Your task to perform on an android device: Open Maps and search for coffee Image 0: 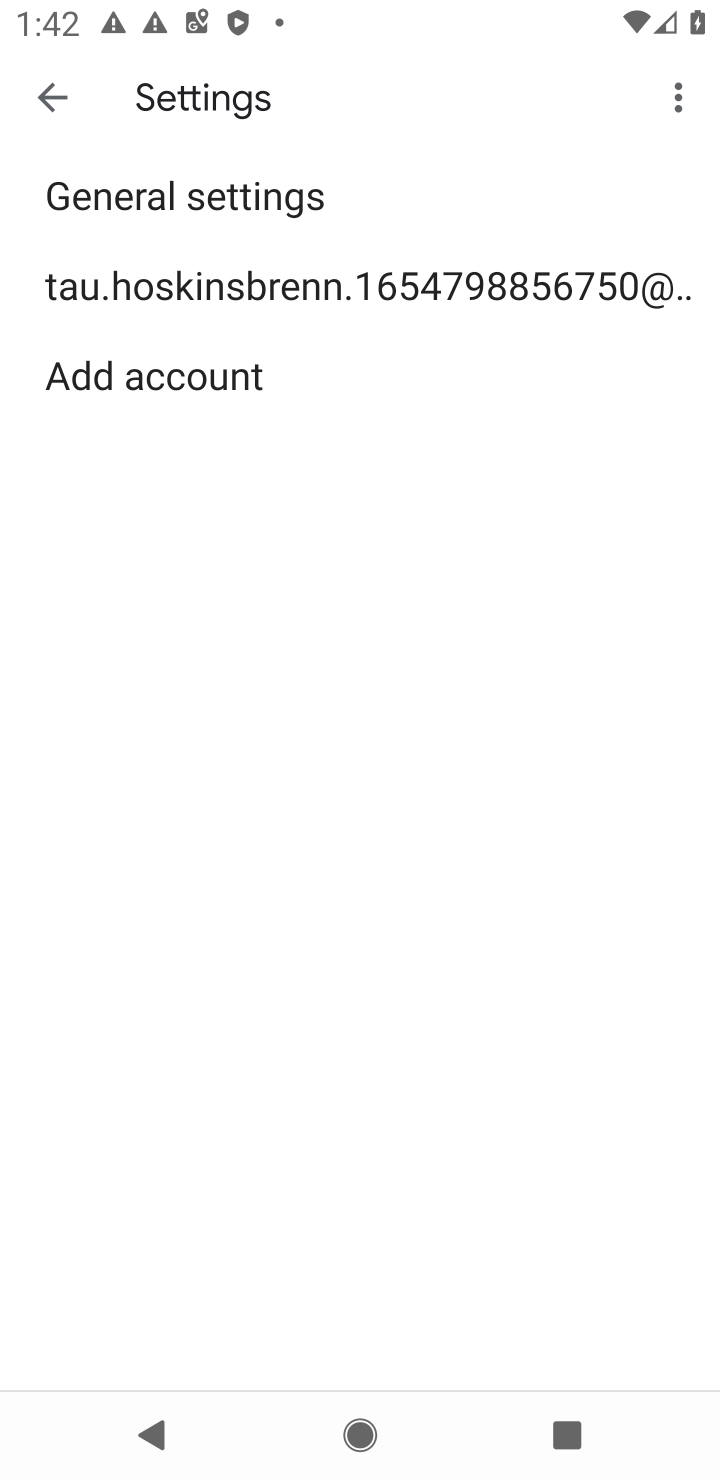
Step 0: press home button
Your task to perform on an android device: Open Maps and search for coffee Image 1: 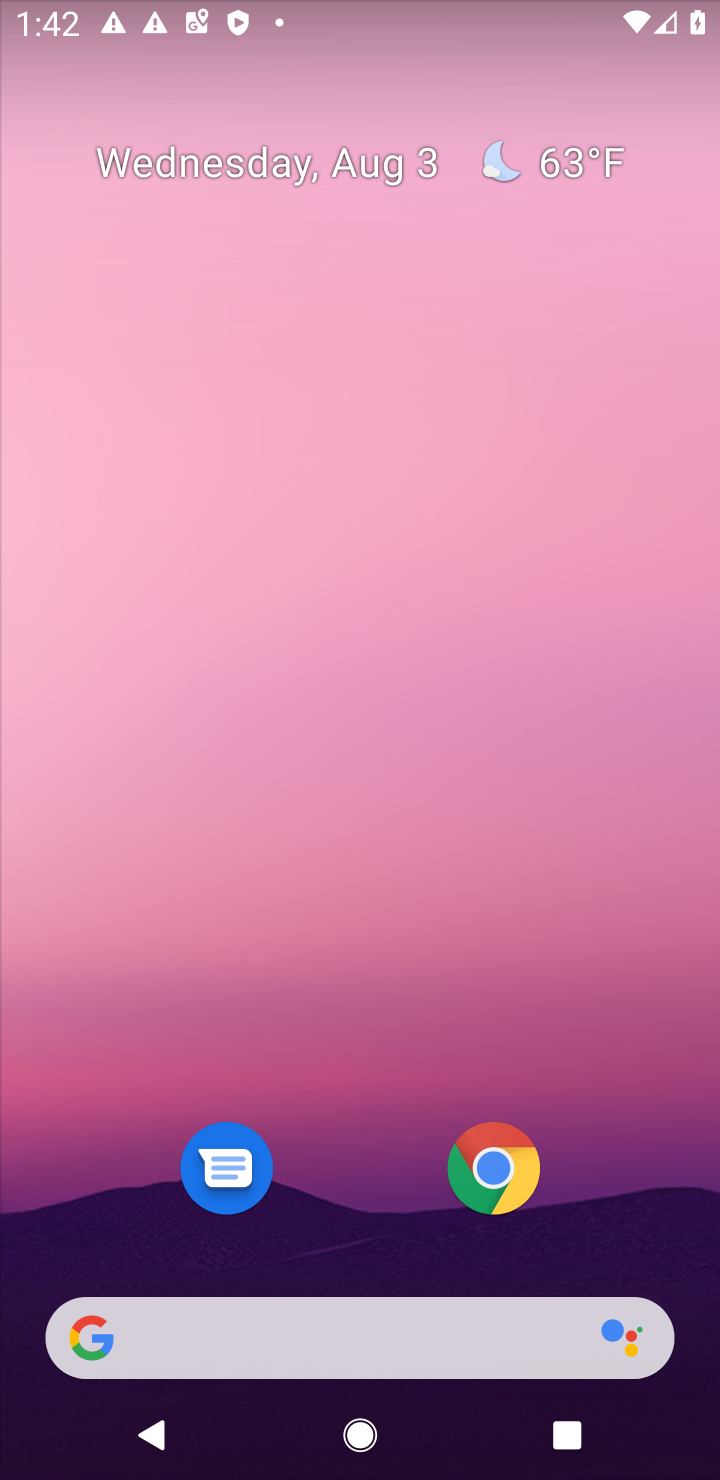
Step 1: drag from (645, 1236) to (571, 256)
Your task to perform on an android device: Open Maps and search for coffee Image 2: 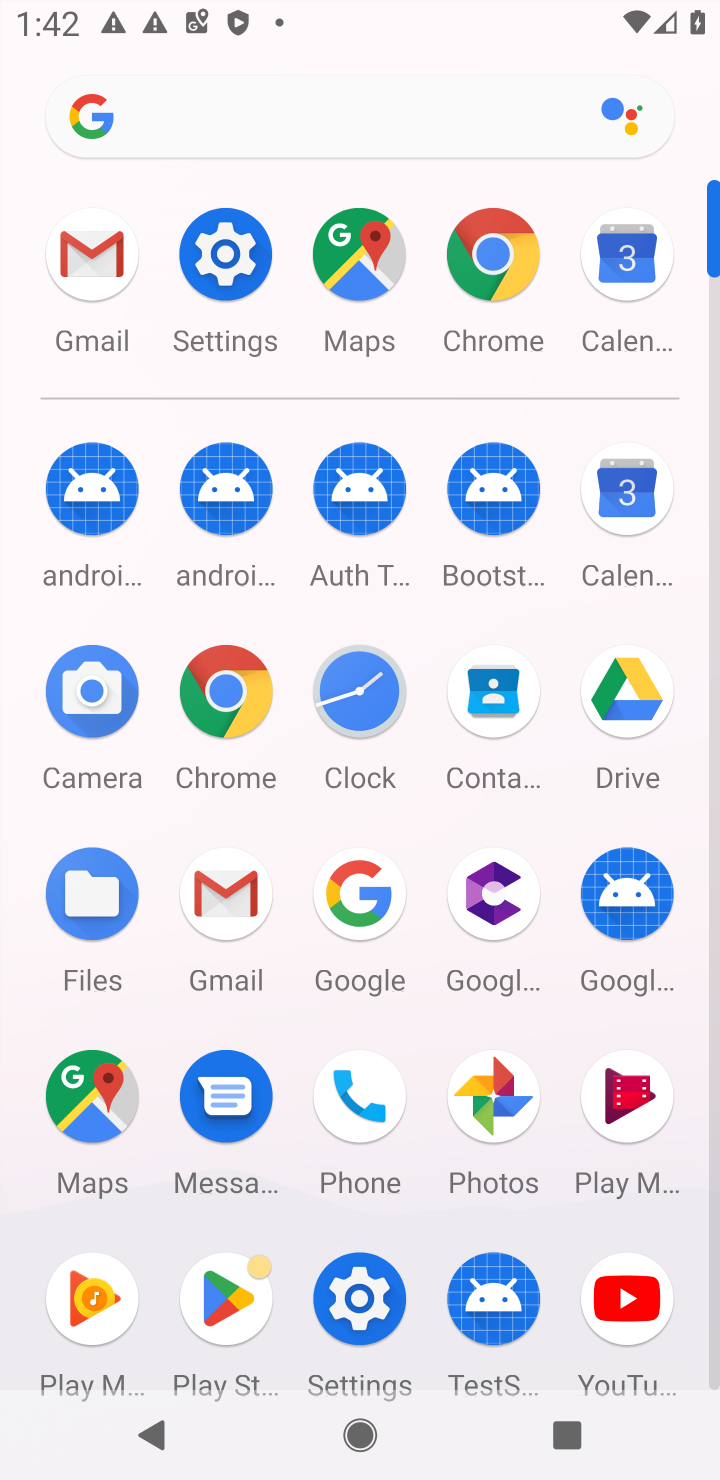
Step 2: click (83, 1098)
Your task to perform on an android device: Open Maps and search for coffee Image 3: 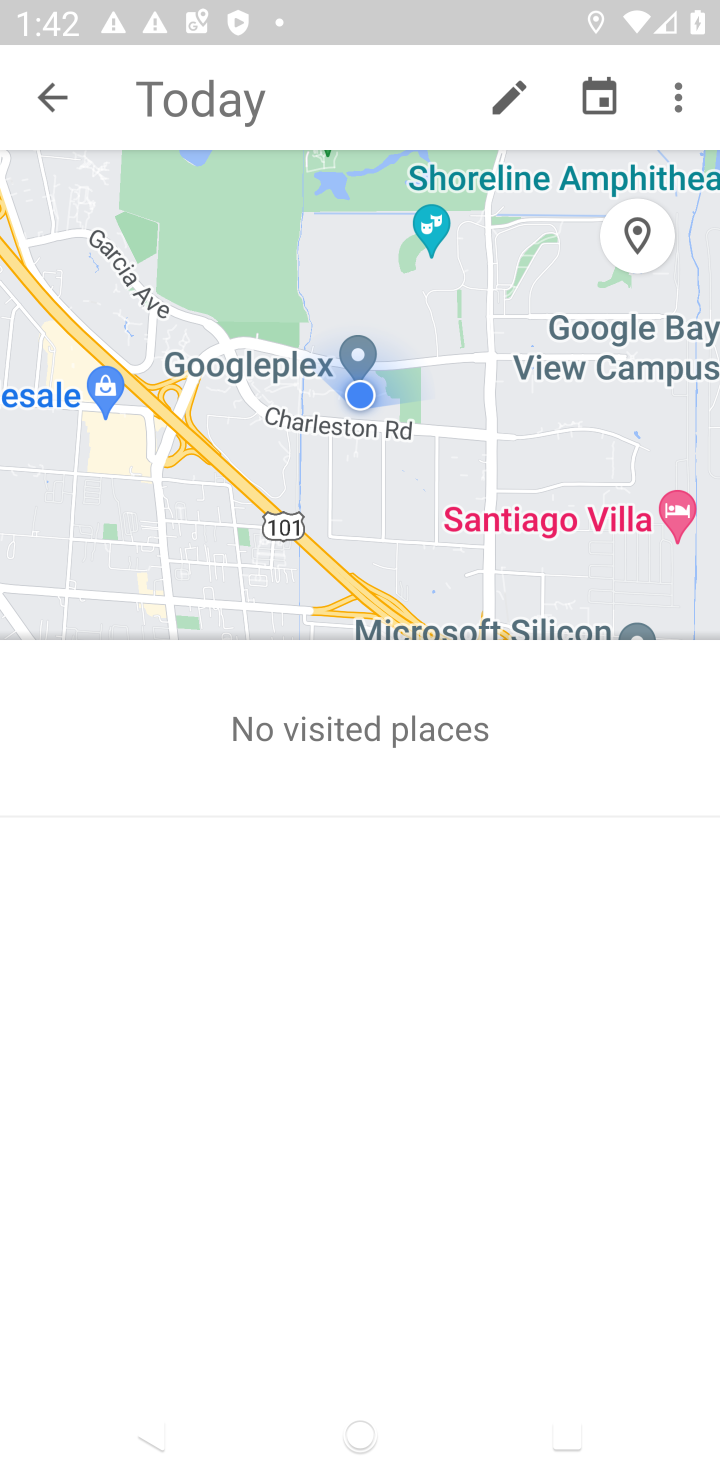
Step 3: press back button
Your task to perform on an android device: Open Maps and search for coffee Image 4: 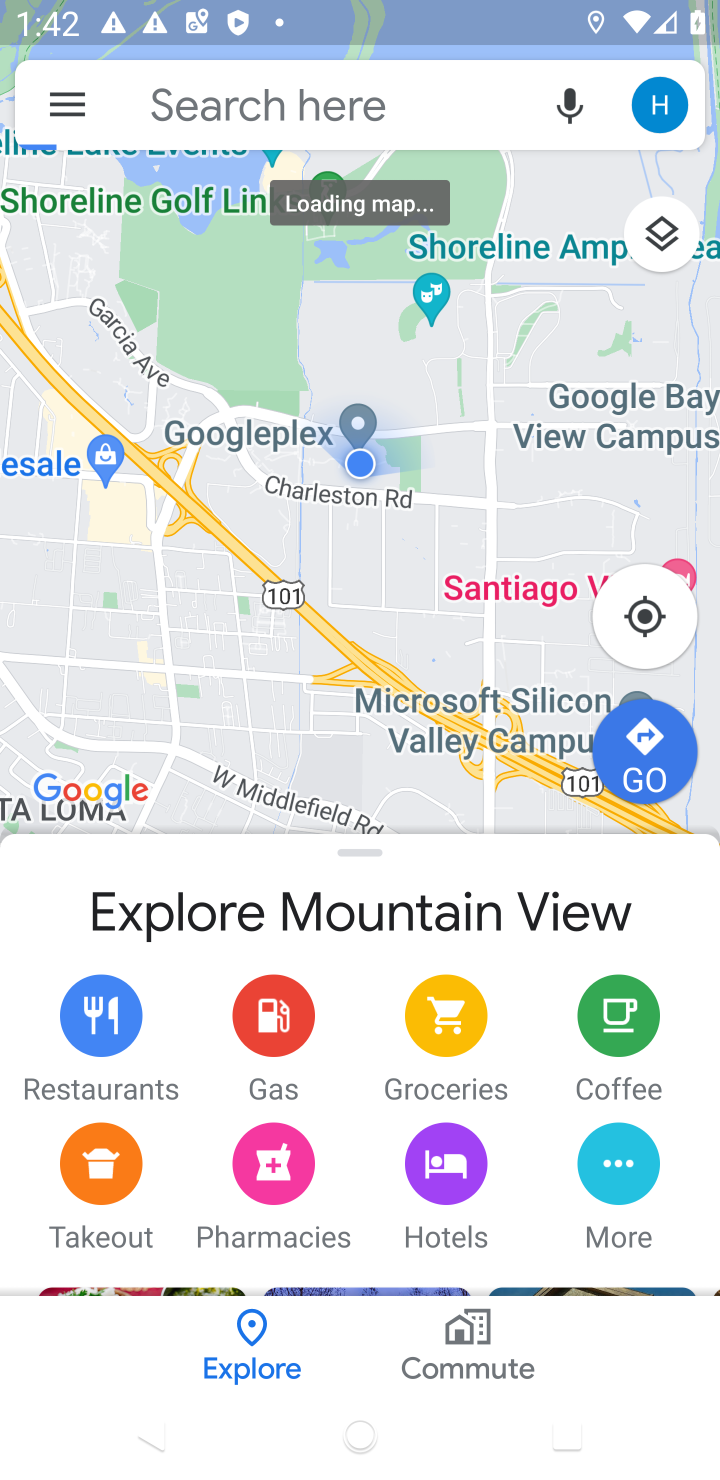
Step 4: click (229, 88)
Your task to perform on an android device: Open Maps and search for coffee Image 5: 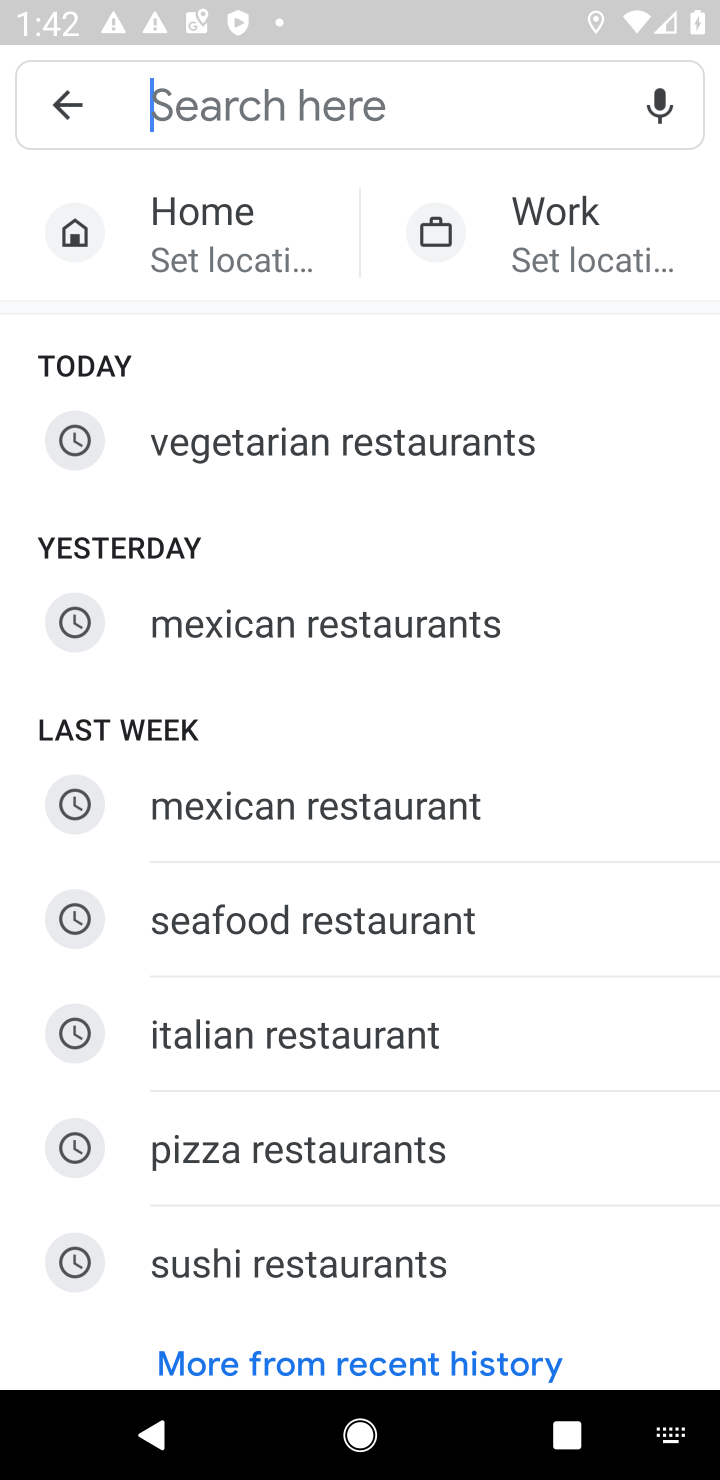
Step 5: type "coffee"
Your task to perform on an android device: Open Maps and search for coffee Image 6: 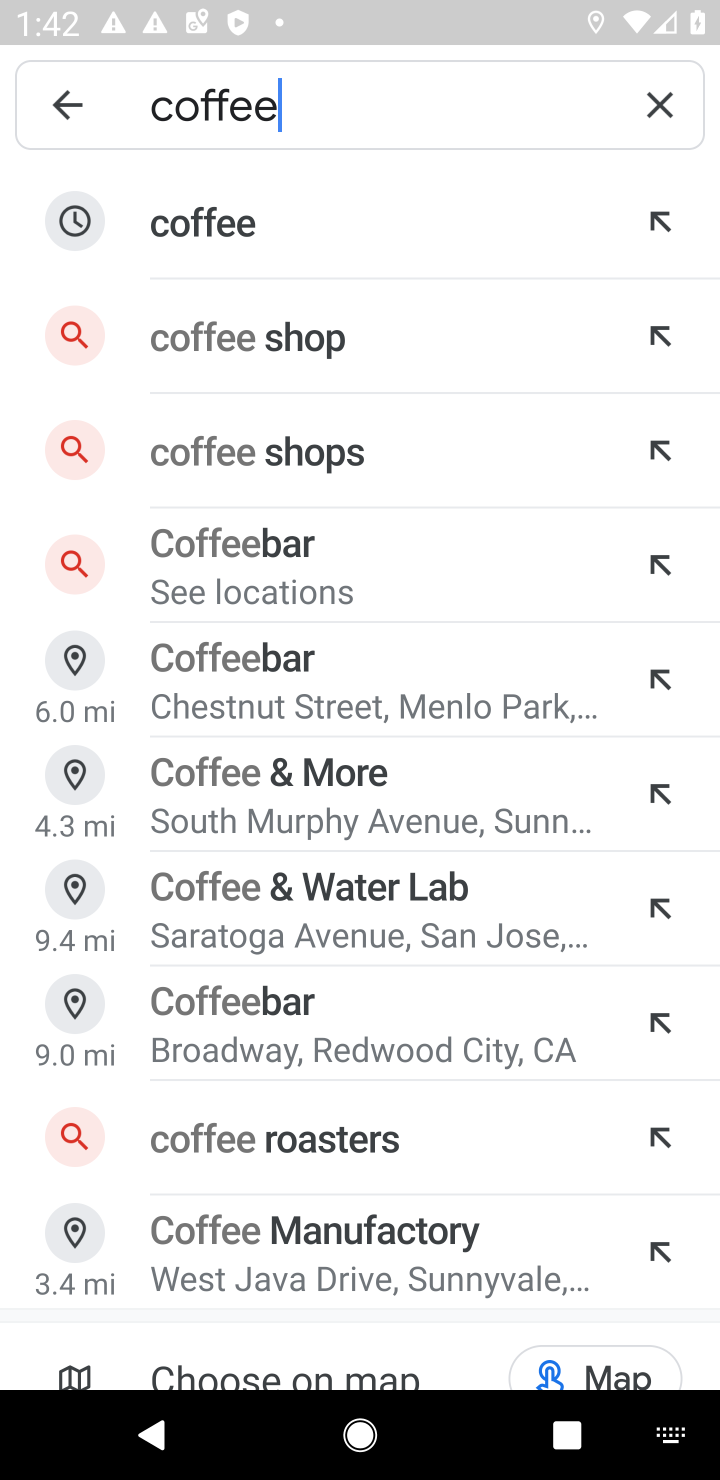
Step 6: click (208, 218)
Your task to perform on an android device: Open Maps and search for coffee Image 7: 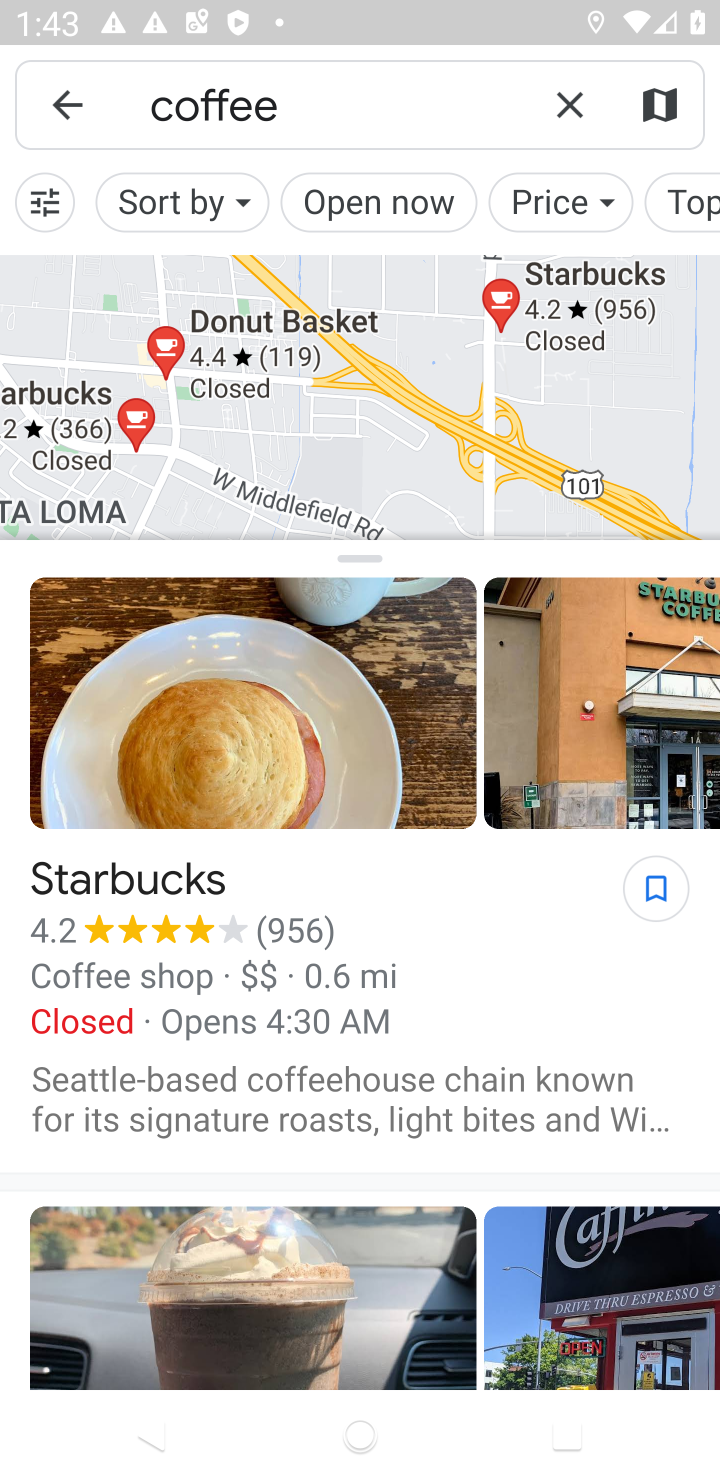
Step 7: drag from (476, 1095) to (465, 363)
Your task to perform on an android device: Open Maps and search for coffee Image 8: 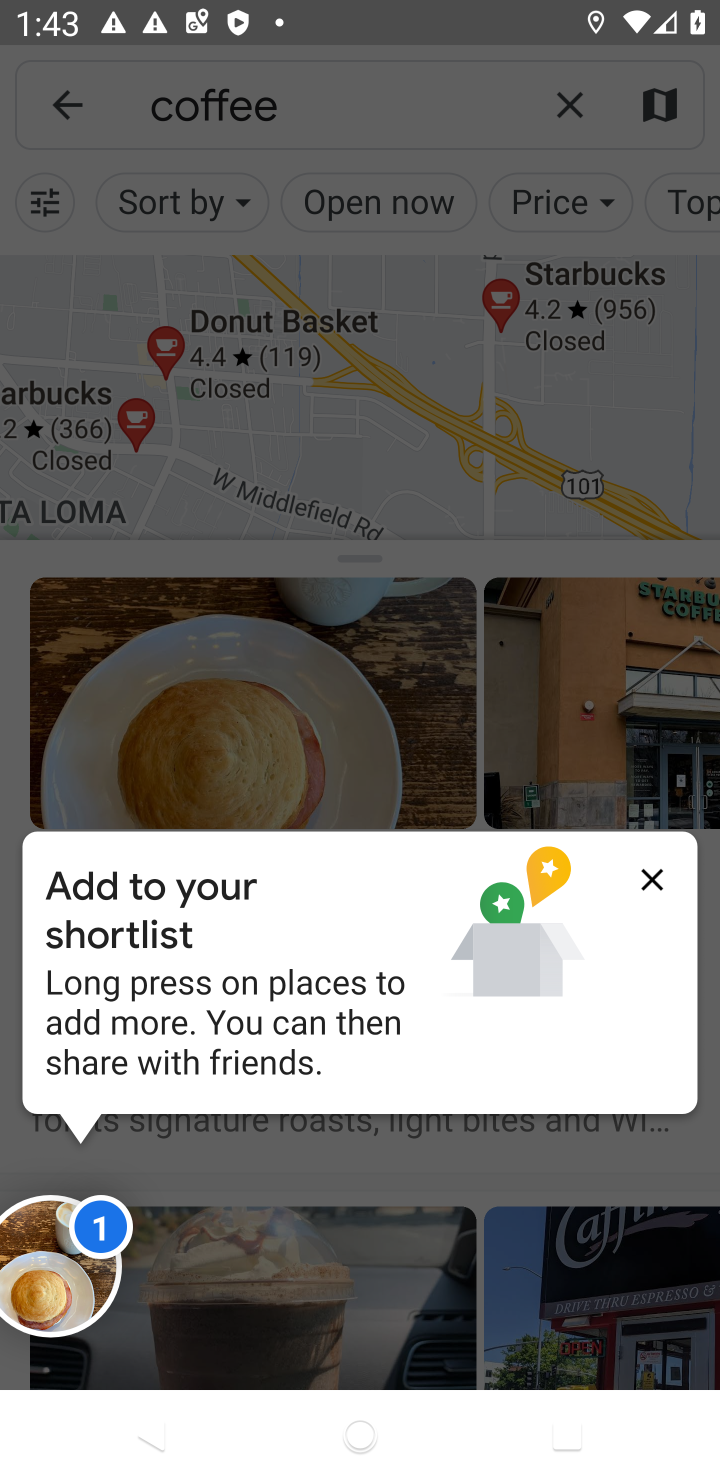
Step 8: click (649, 868)
Your task to perform on an android device: Open Maps and search for coffee Image 9: 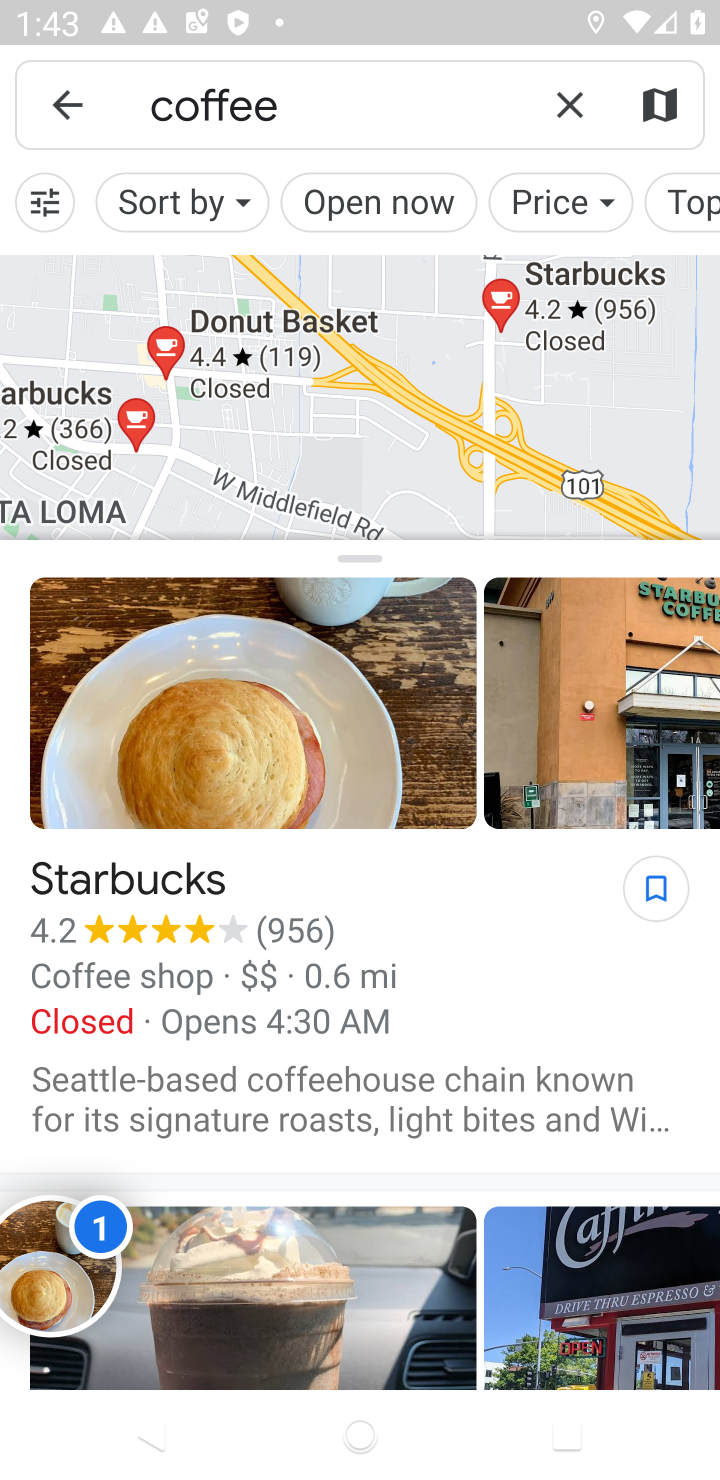
Step 9: task complete